Your task to perform on an android device: Open accessibility settings Image 0: 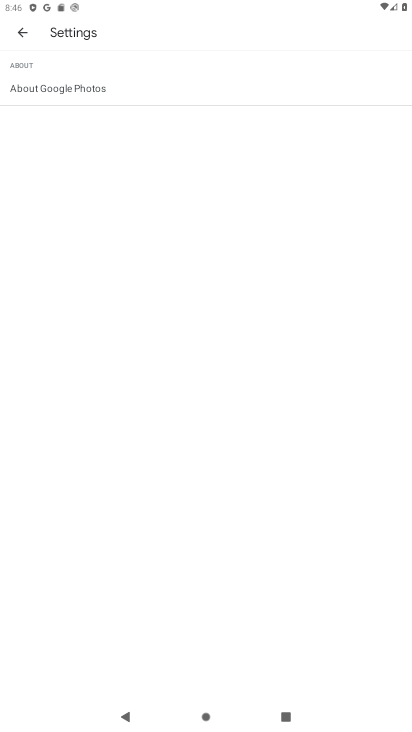
Step 0: press home button
Your task to perform on an android device: Open accessibility settings Image 1: 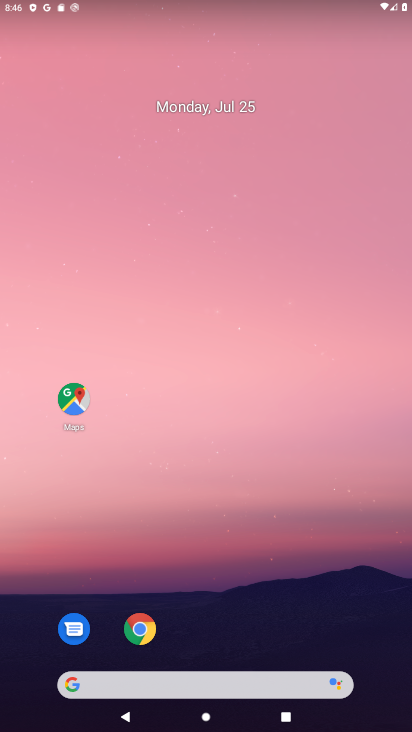
Step 1: drag from (215, 647) to (211, 195)
Your task to perform on an android device: Open accessibility settings Image 2: 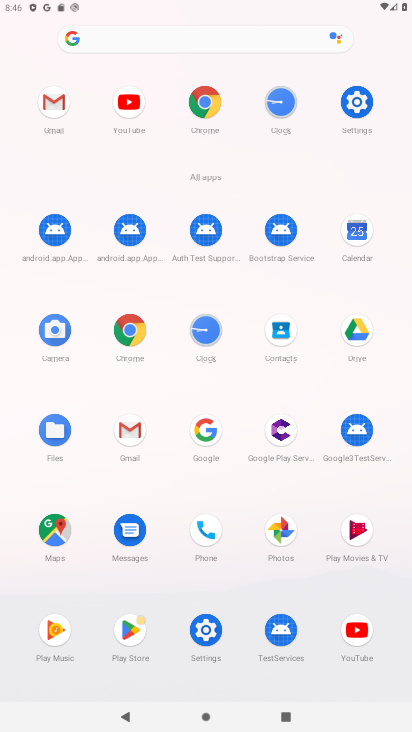
Step 2: click (359, 108)
Your task to perform on an android device: Open accessibility settings Image 3: 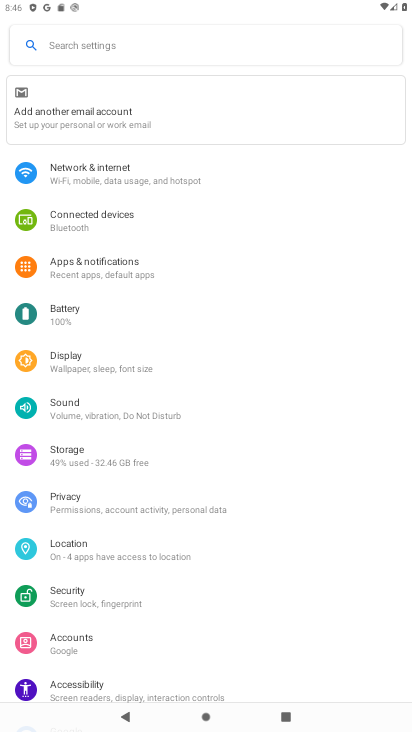
Step 3: click (114, 688)
Your task to perform on an android device: Open accessibility settings Image 4: 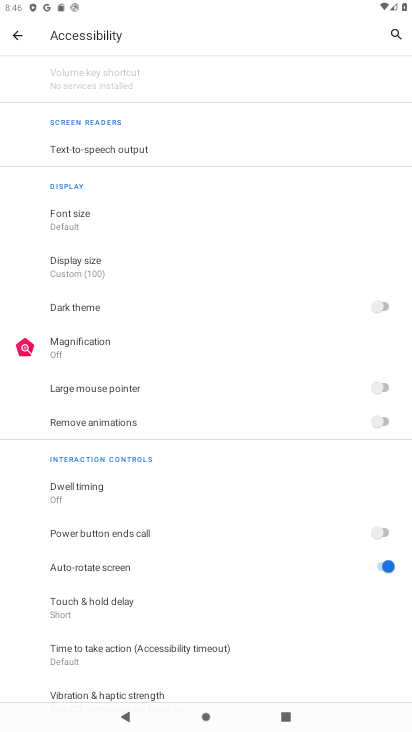
Step 4: task complete